Your task to perform on an android device: empty trash in the gmail app Image 0: 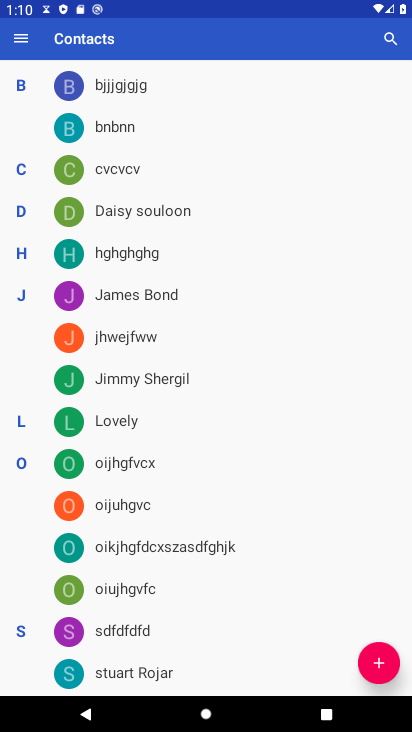
Step 0: press home button
Your task to perform on an android device: empty trash in the gmail app Image 1: 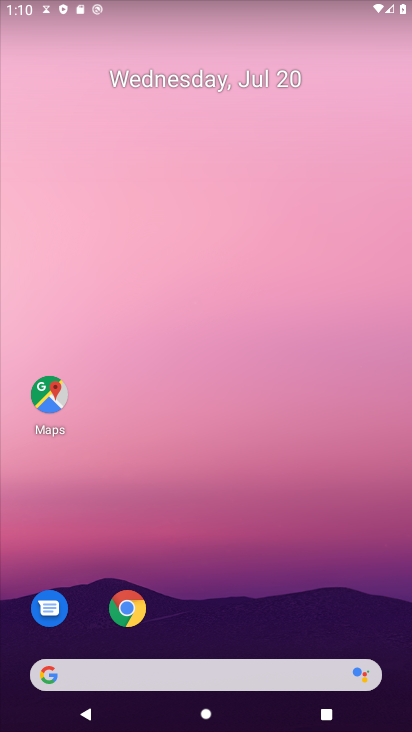
Step 1: drag from (208, 678) to (282, 111)
Your task to perform on an android device: empty trash in the gmail app Image 2: 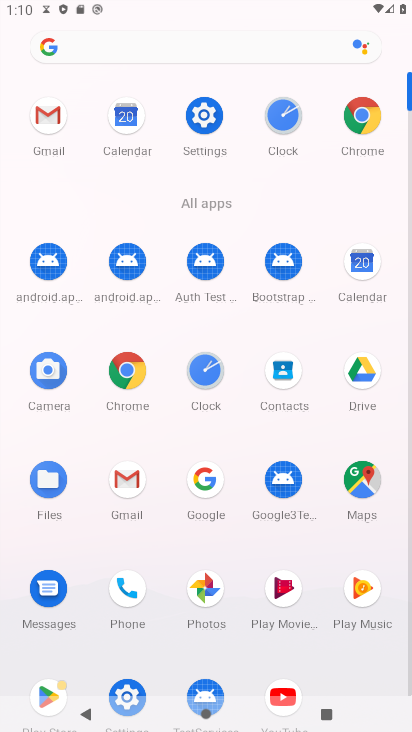
Step 2: click (47, 114)
Your task to perform on an android device: empty trash in the gmail app Image 3: 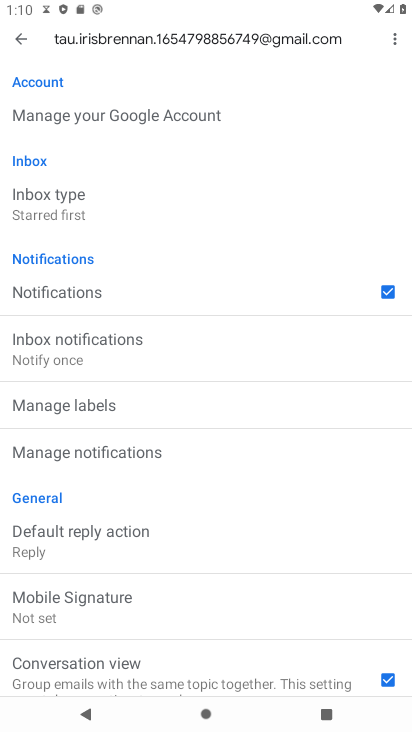
Step 3: press back button
Your task to perform on an android device: empty trash in the gmail app Image 4: 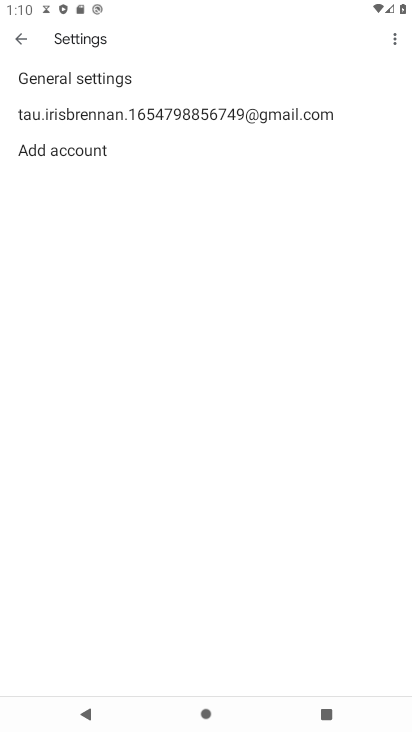
Step 4: press back button
Your task to perform on an android device: empty trash in the gmail app Image 5: 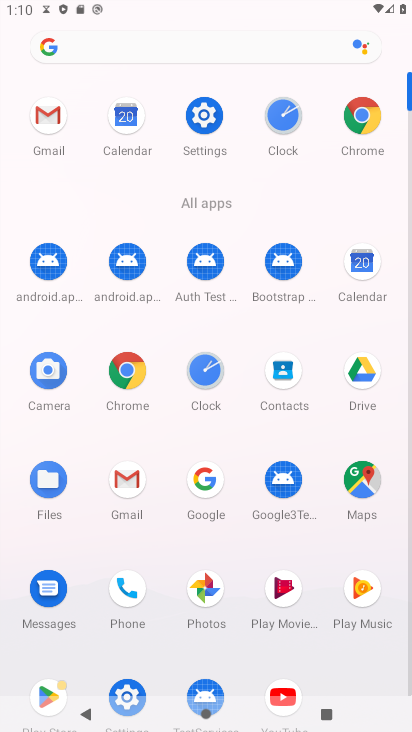
Step 5: click (45, 114)
Your task to perform on an android device: empty trash in the gmail app Image 6: 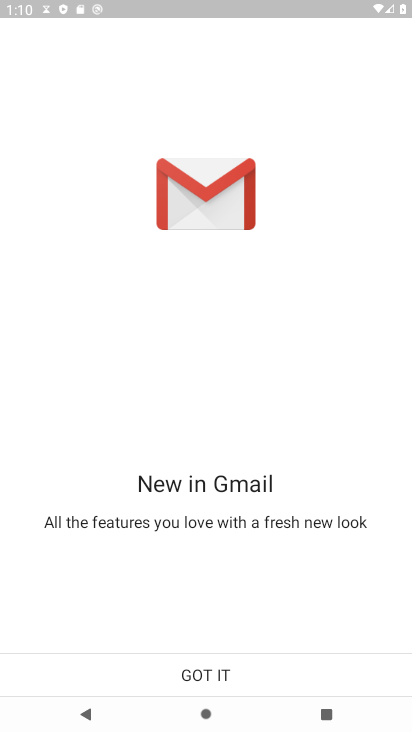
Step 6: click (212, 677)
Your task to perform on an android device: empty trash in the gmail app Image 7: 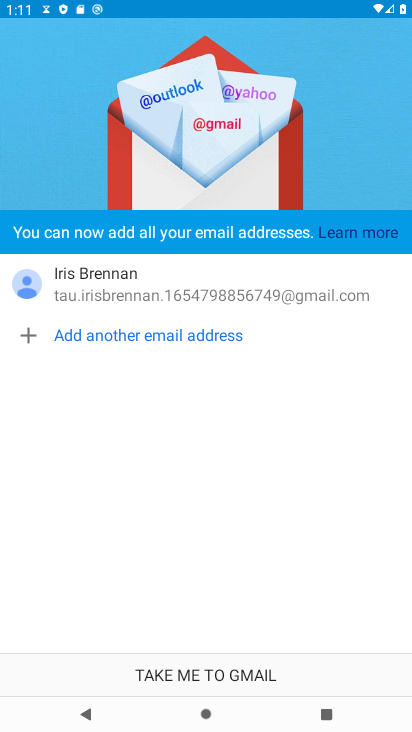
Step 7: click (212, 677)
Your task to perform on an android device: empty trash in the gmail app Image 8: 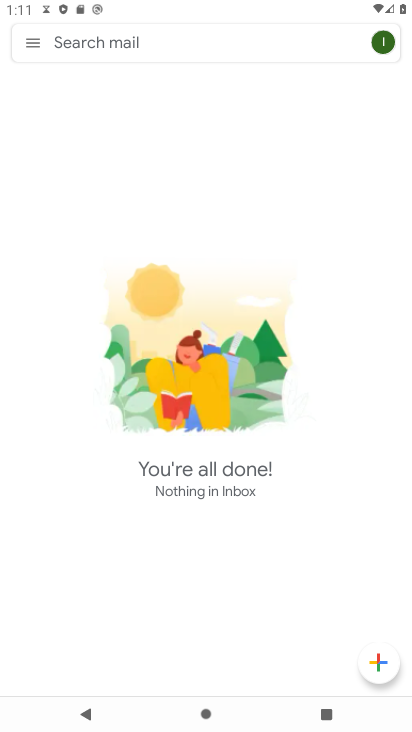
Step 8: click (33, 43)
Your task to perform on an android device: empty trash in the gmail app Image 9: 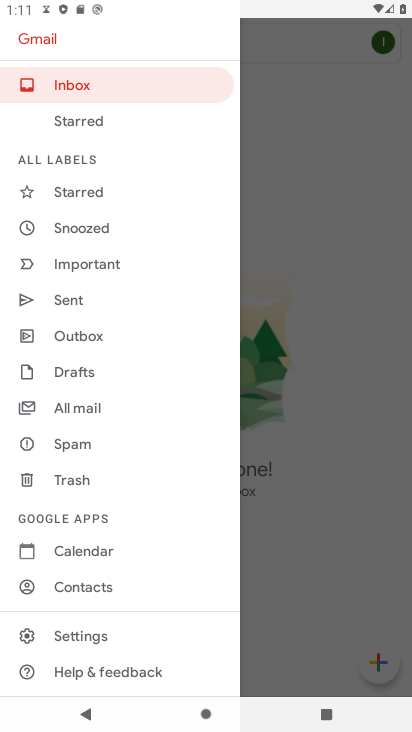
Step 9: click (69, 478)
Your task to perform on an android device: empty trash in the gmail app Image 10: 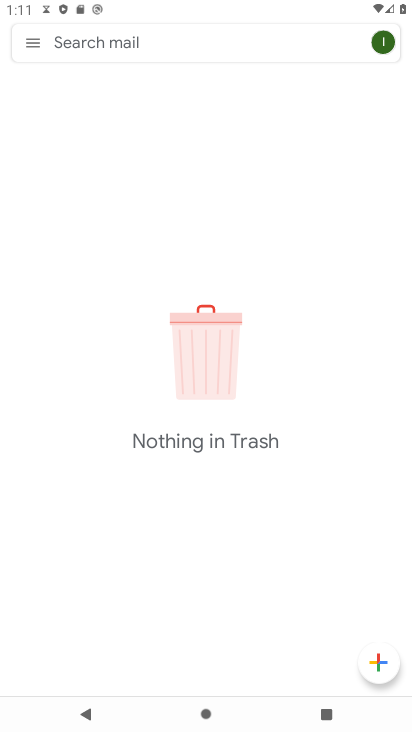
Step 10: task complete